Your task to perform on an android device: choose inbox layout in the gmail app Image 0: 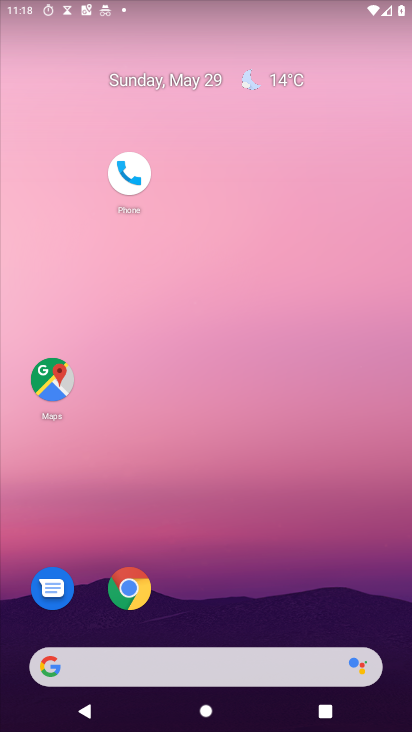
Step 0: drag from (288, 669) to (169, 190)
Your task to perform on an android device: choose inbox layout in the gmail app Image 1: 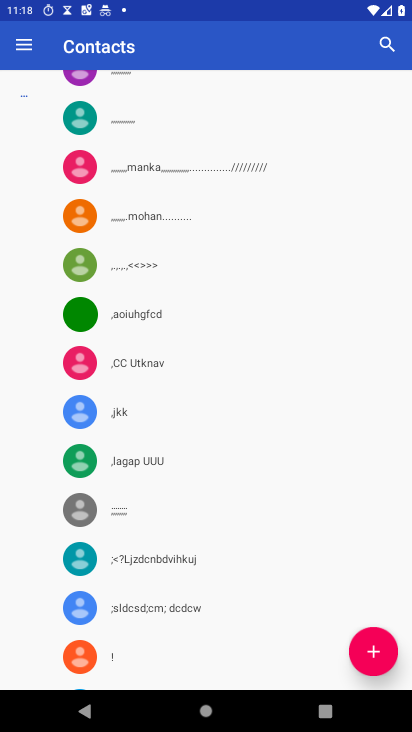
Step 1: press home button
Your task to perform on an android device: choose inbox layout in the gmail app Image 2: 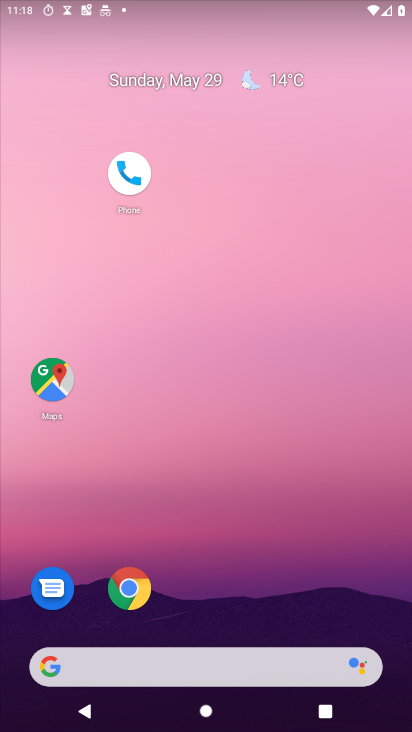
Step 2: drag from (251, 588) to (218, 94)
Your task to perform on an android device: choose inbox layout in the gmail app Image 3: 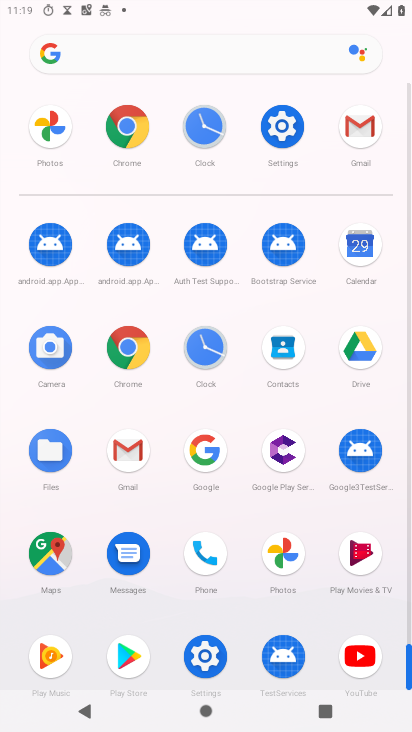
Step 3: click (127, 448)
Your task to perform on an android device: choose inbox layout in the gmail app Image 4: 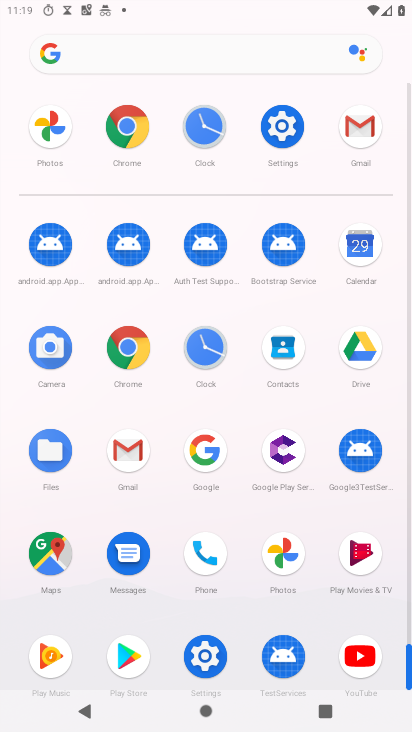
Step 4: click (127, 448)
Your task to perform on an android device: choose inbox layout in the gmail app Image 5: 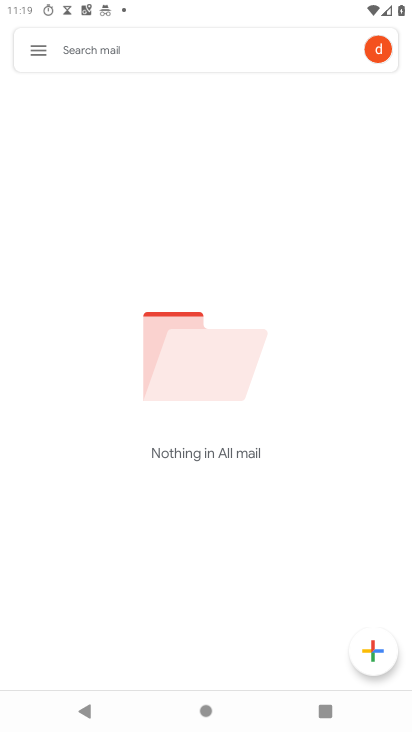
Step 5: click (37, 53)
Your task to perform on an android device: choose inbox layout in the gmail app Image 6: 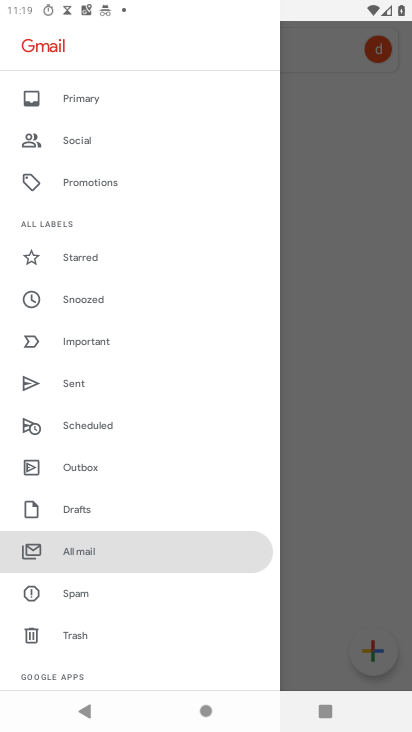
Step 6: task complete